Your task to perform on an android device: make emails show in primary in the gmail app Image 0: 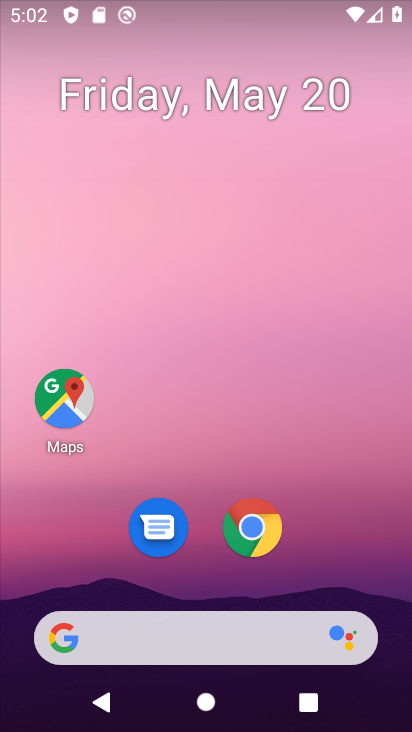
Step 0: drag from (301, 620) to (276, 0)
Your task to perform on an android device: make emails show in primary in the gmail app Image 1: 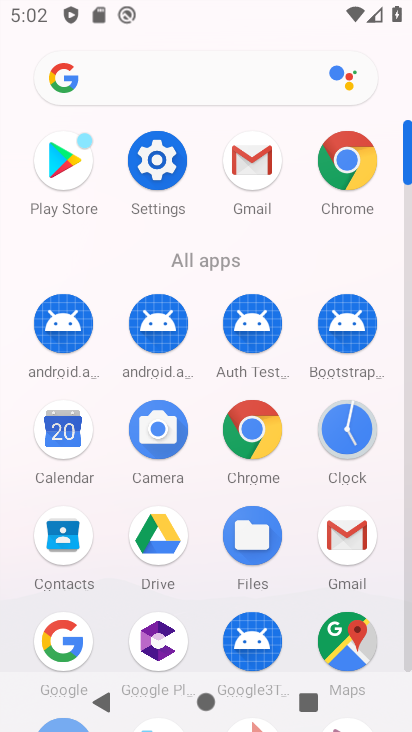
Step 1: click (353, 551)
Your task to perform on an android device: make emails show in primary in the gmail app Image 2: 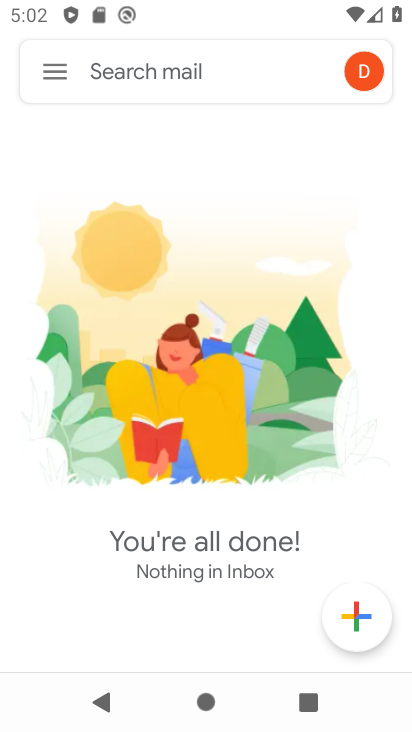
Step 2: click (56, 71)
Your task to perform on an android device: make emails show in primary in the gmail app Image 3: 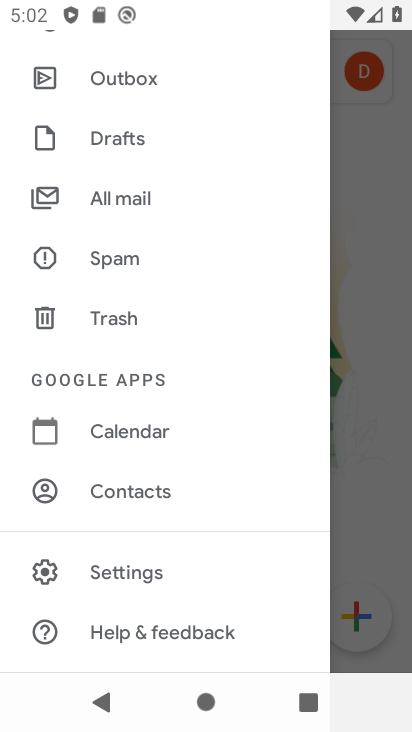
Step 3: click (172, 569)
Your task to perform on an android device: make emails show in primary in the gmail app Image 4: 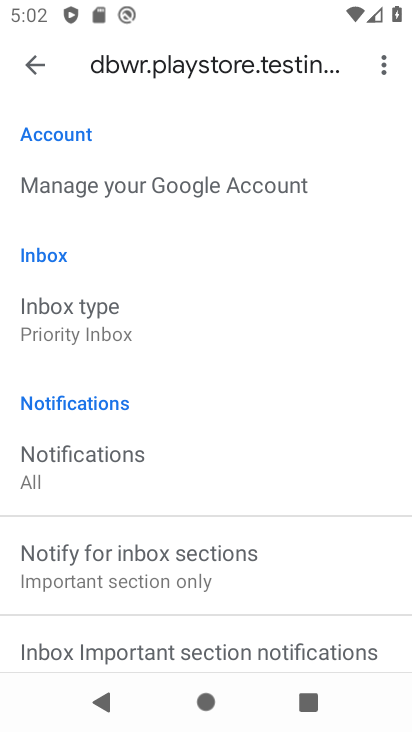
Step 4: drag from (134, 212) to (100, 600)
Your task to perform on an android device: make emails show in primary in the gmail app Image 5: 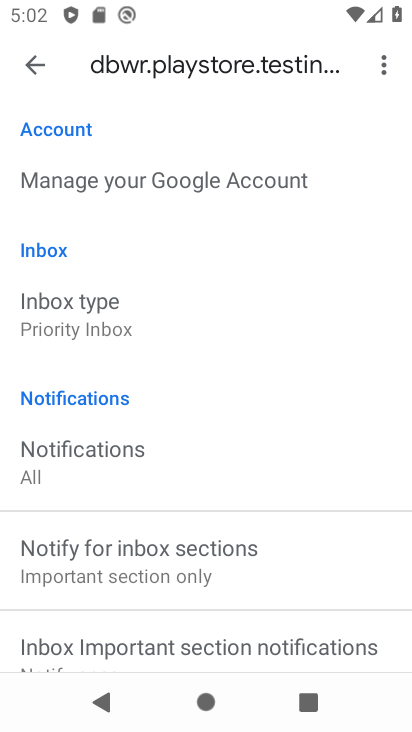
Step 5: click (97, 322)
Your task to perform on an android device: make emails show in primary in the gmail app Image 6: 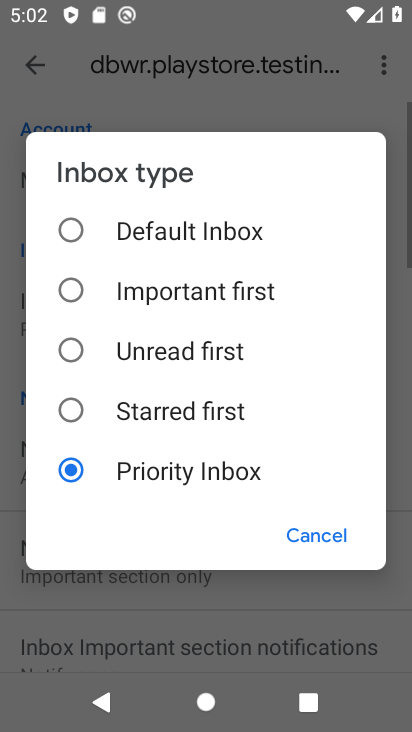
Step 6: click (132, 224)
Your task to perform on an android device: make emails show in primary in the gmail app Image 7: 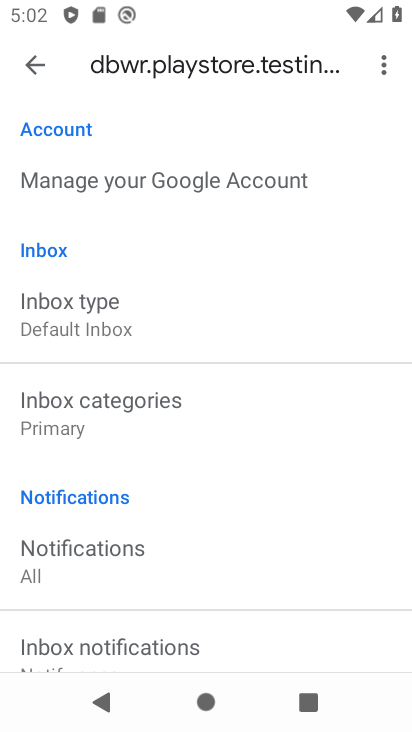
Step 7: press back button
Your task to perform on an android device: make emails show in primary in the gmail app Image 8: 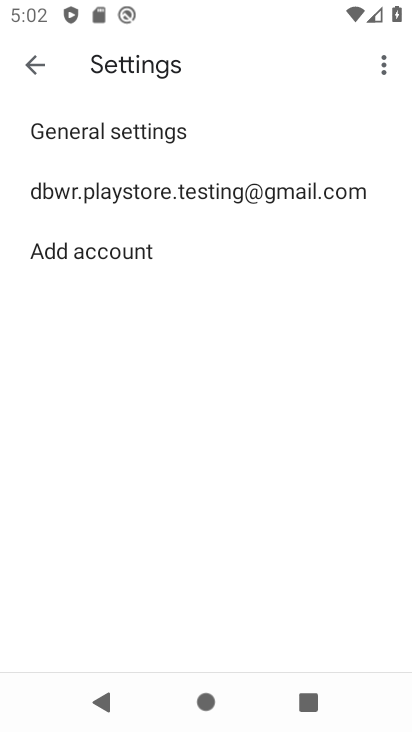
Step 8: press back button
Your task to perform on an android device: make emails show in primary in the gmail app Image 9: 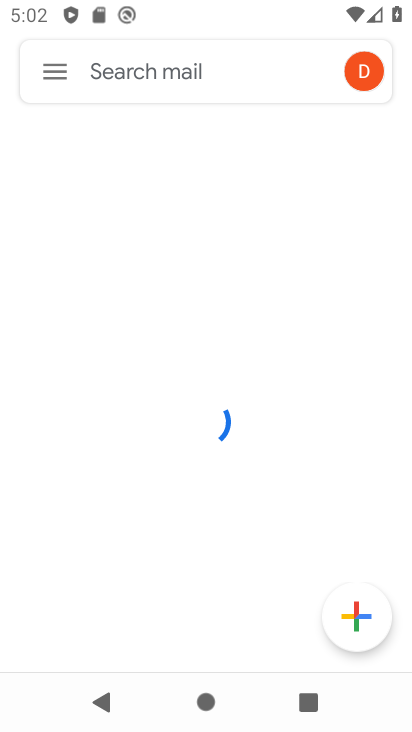
Step 9: click (60, 65)
Your task to perform on an android device: make emails show in primary in the gmail app Image 10: 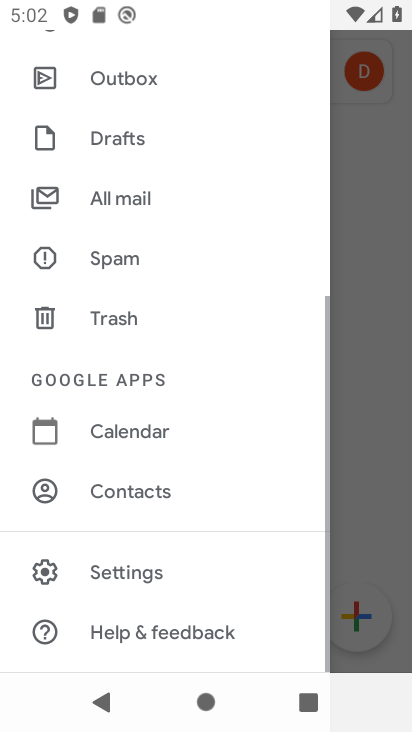
Step 10: task complete